Your task to perform on an android device: Open ESPN.com Image 0: 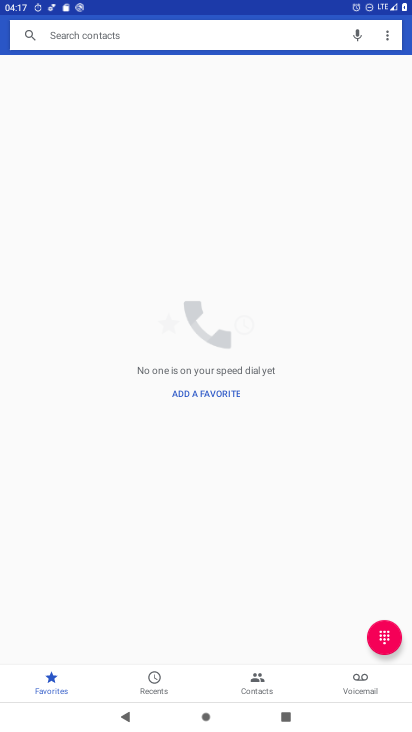
Step 0: press home button
Your task to perform on an android device: Open ESPN.com Image 1: 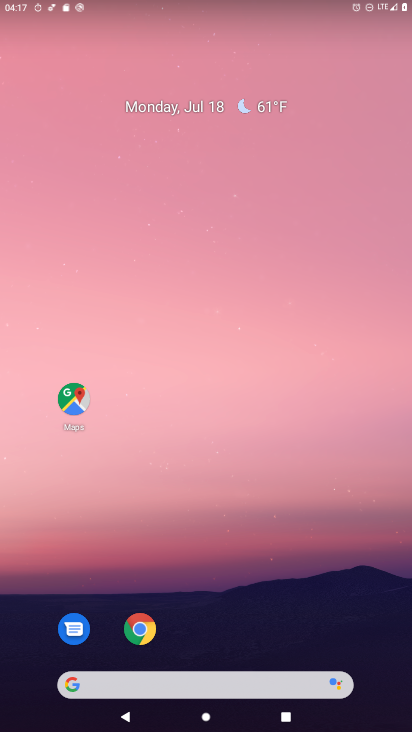
Step 1: click (141, 630)
Your task to perform on an android device: Open ESPN.com Image 2: 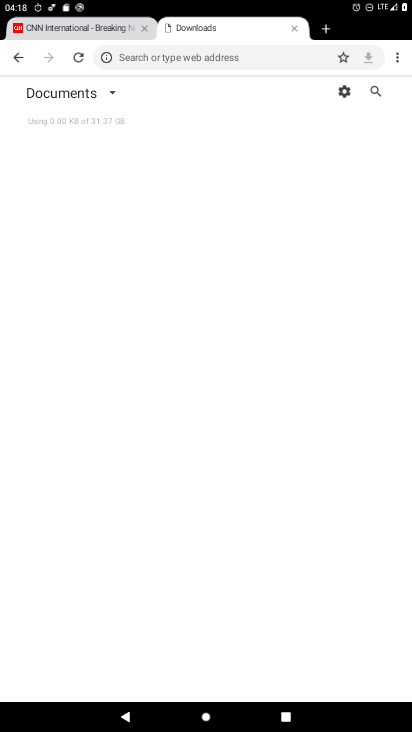
Step 2: click (322, 31)
Your task to perform on an android device: Open ESPN.com Image 3: 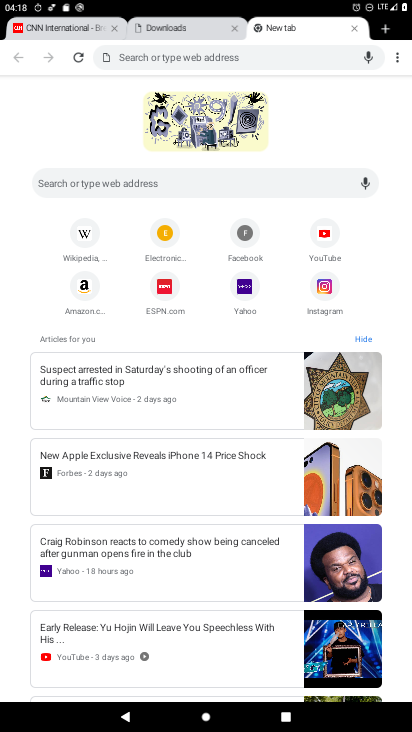
Step 3: click (165, 293)
Your task to perform on an android device: Open ESPN.com Image 4: 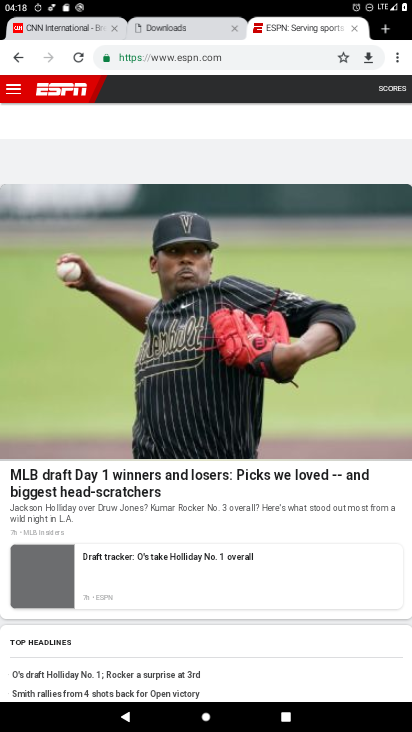
Step 4: task complete